Your task to perform on an android device: Go to Google maps Image 0: 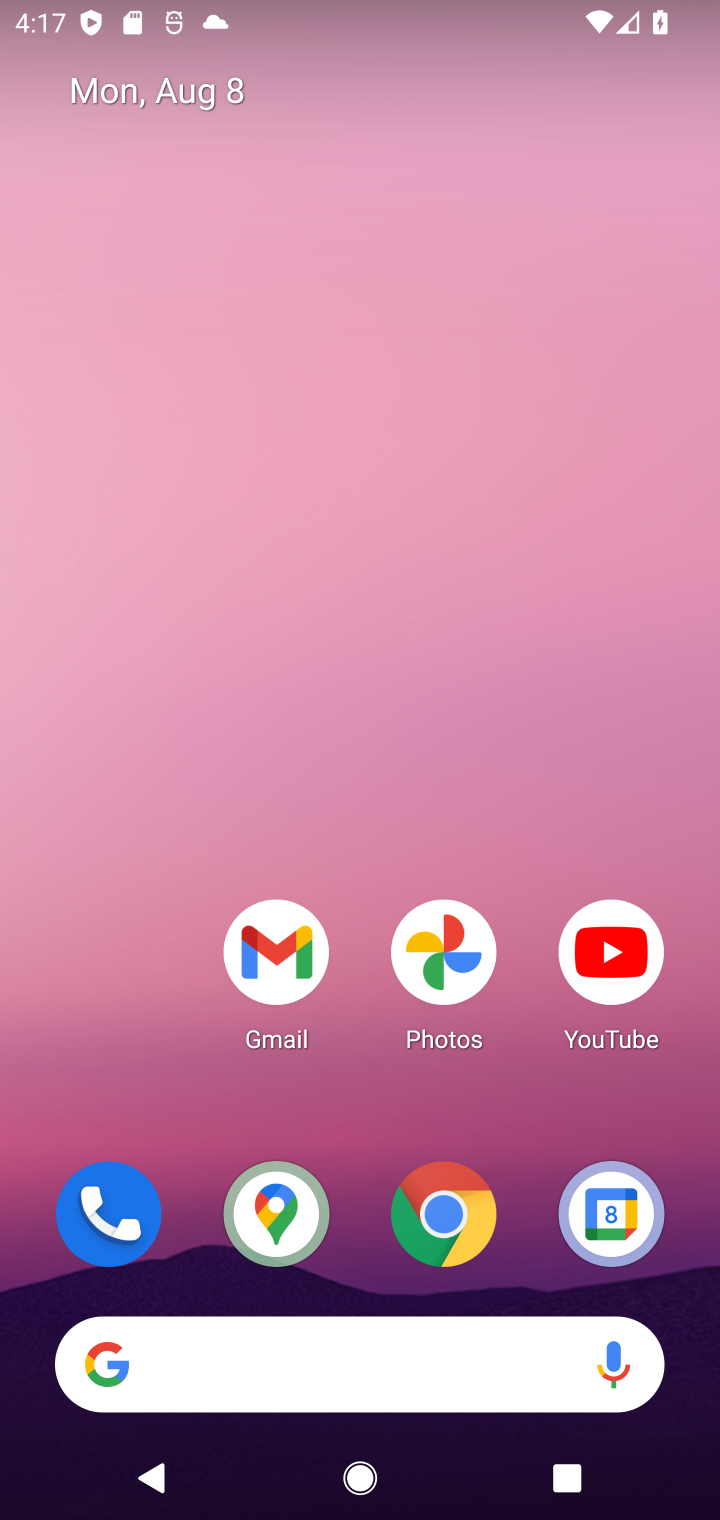
Step 0: drag from (351, 987) to (351, 160)
Your task to perform on an android device: Go to Google maps Image 1: 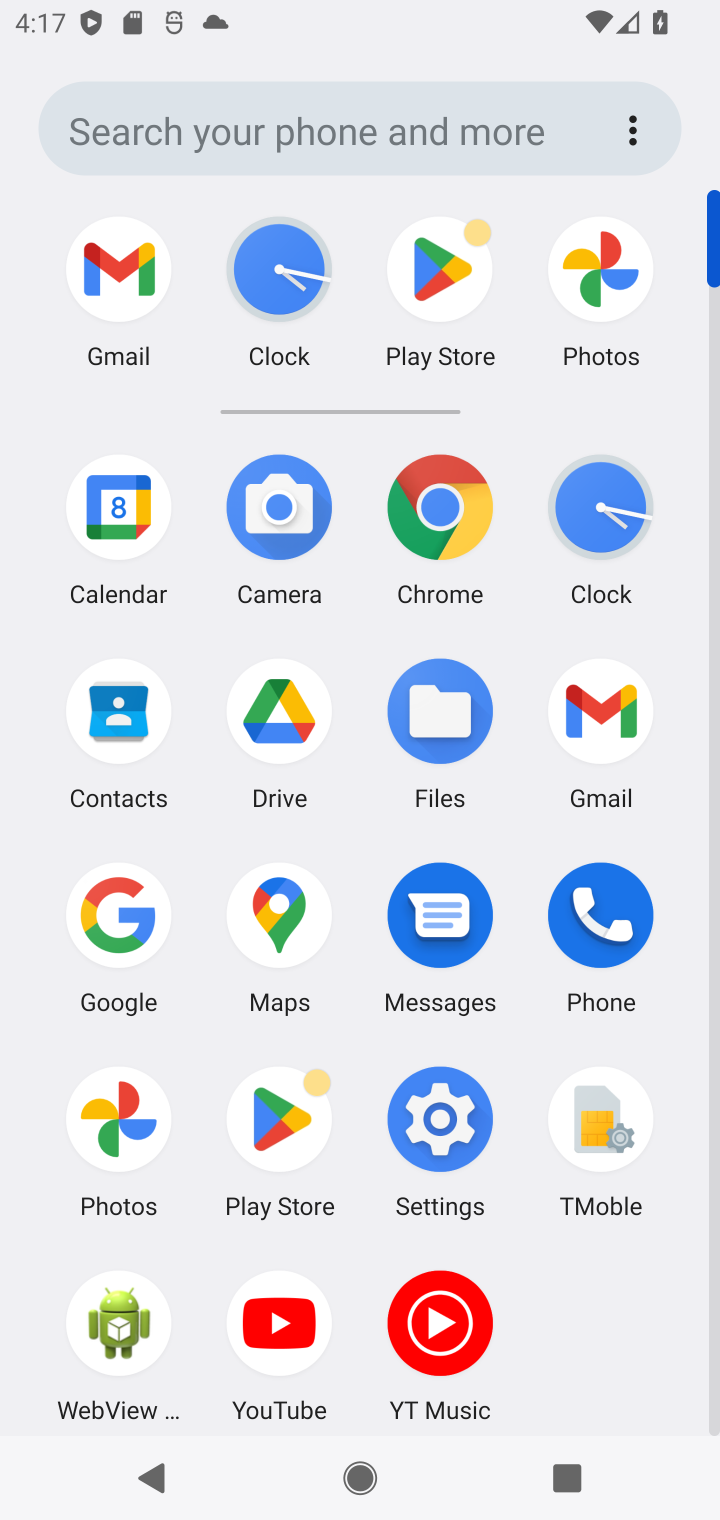
Step 1: click (282, 906)
Your task to perform on an android device: Go to Google maps Image 2: 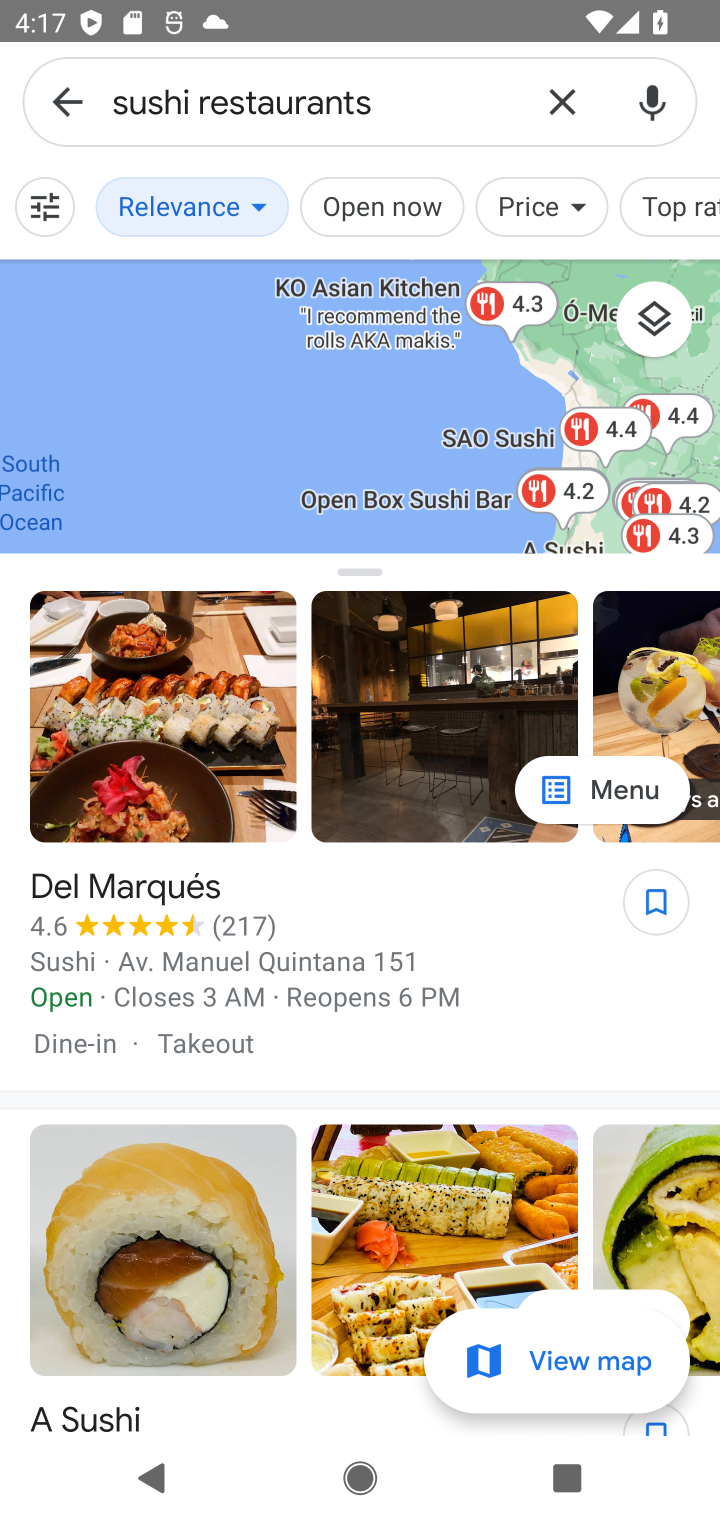
Step 2: task complete